Your task to perform on an android device: What is the capital of Norway? Image 0: 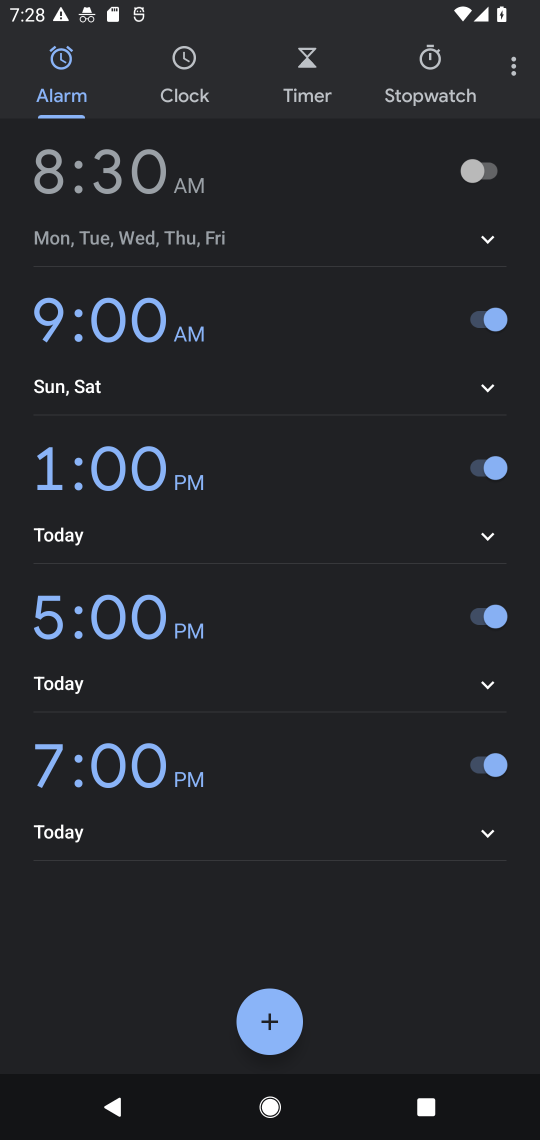
Step 0: press home button
Your task to perform on an android device: What is the capital of Norway? Image 1: 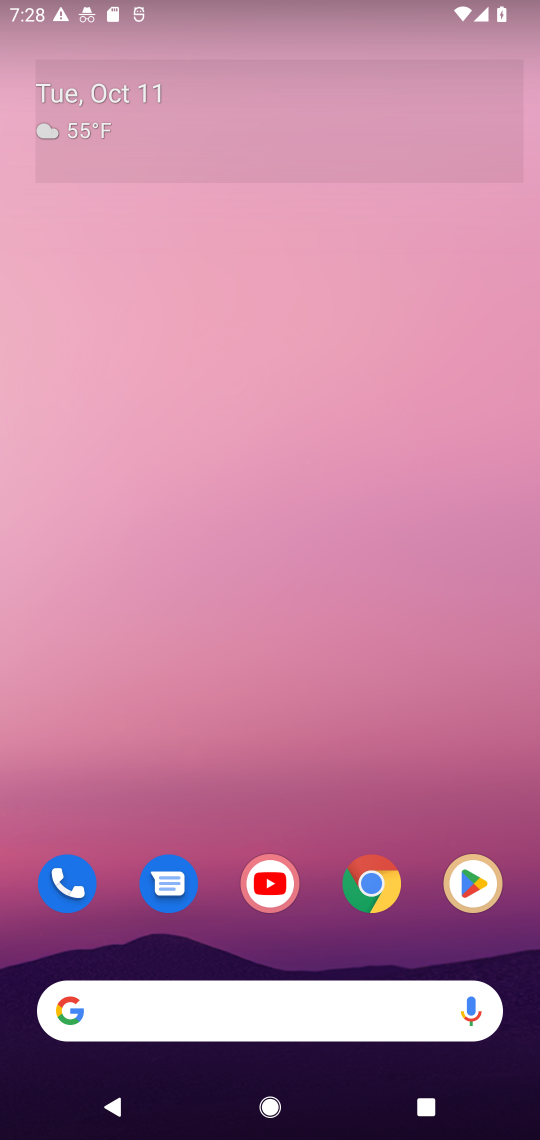
Step 1: drag from (307, 900) to (169, 10)
Your task to perform on an android device: What is the capital of Norway? Image 2: 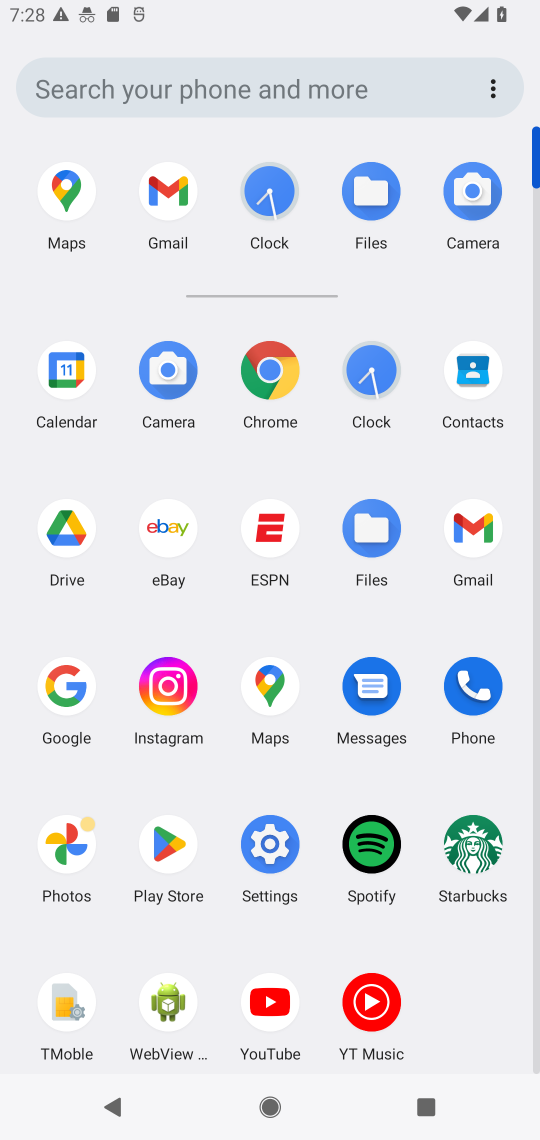
Step 2: click (269, 364)
Your task to perform on an android device: What is the capital of Norway? Image 3: 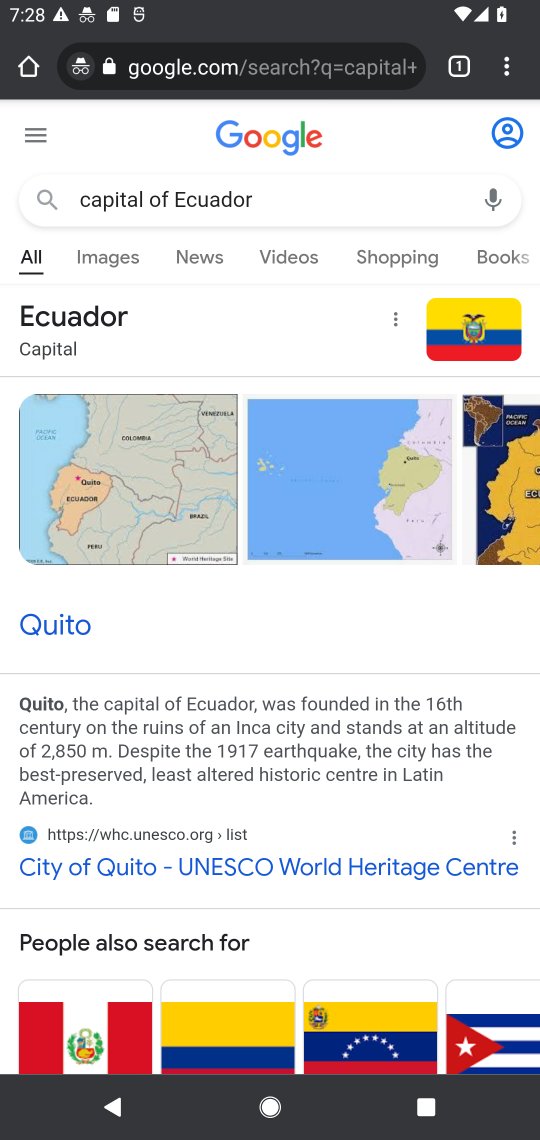
Step 3: click (299, 72)
Your task to perform on an android device: What is the capital of Norway? Image 4: 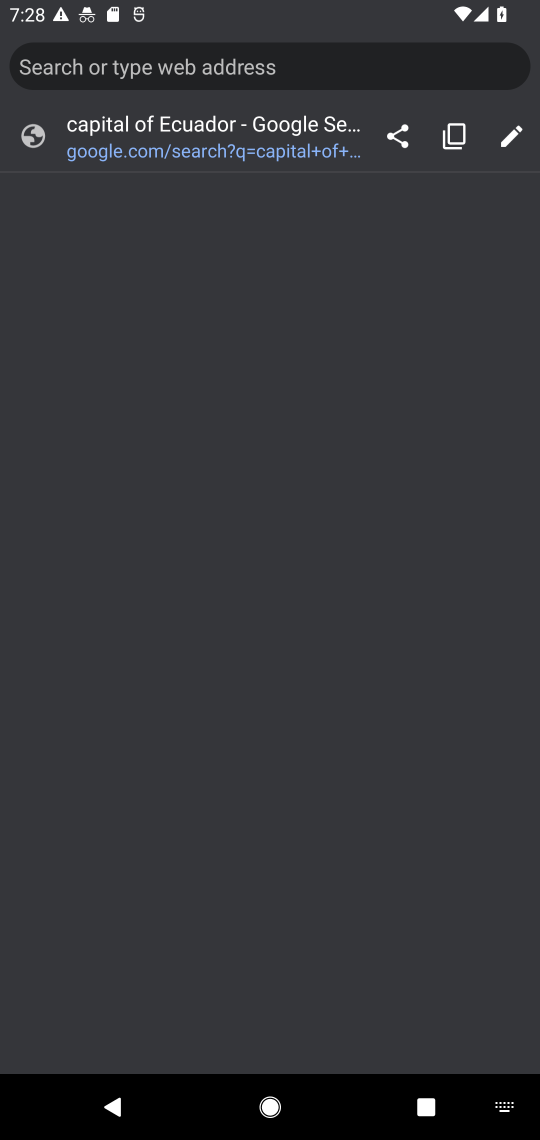
Step 4: type "What is the capital of Norway?"
Your task to perform on an android device: What is the capital of Norway? Image 5: 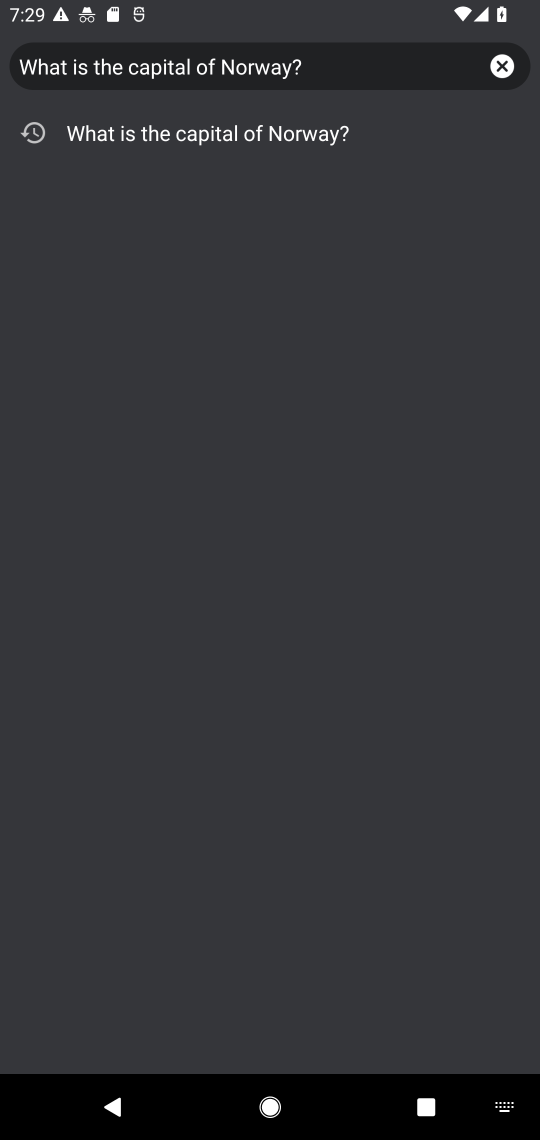
Step 5: press enter
Your task to perform on an android device: What is the capital of Norway? Image 6: 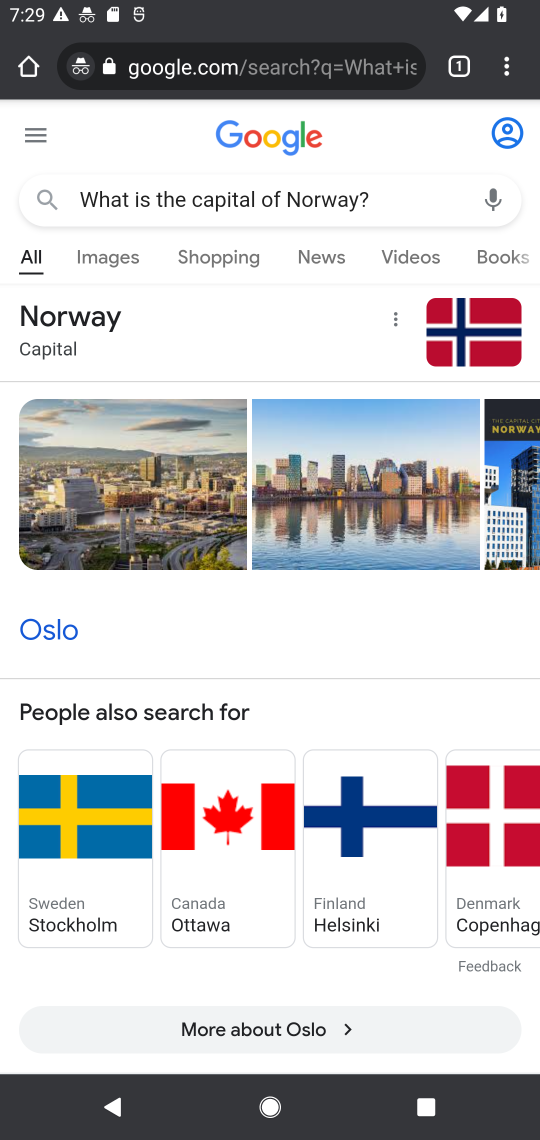
Step 6: task complete